Your task to perform on an android device: move a message to another label in the gmail app Image 0: 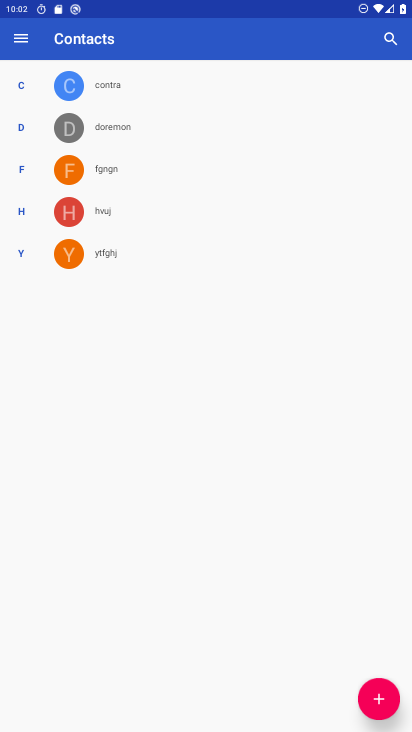
Step 0: press home button
Your task to perform on an android device: move a message to another label in the gmail app Image 1: 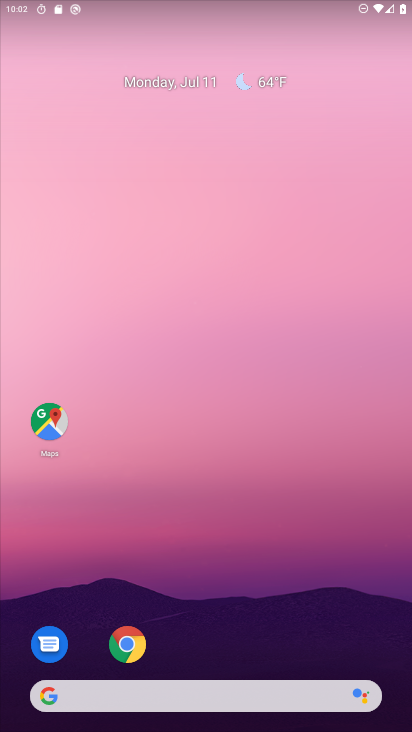
Step 1: drag from (307, 627) to (213, 172)
Your task to perform on an android device: move a message to another label in the gmail app Image 2: 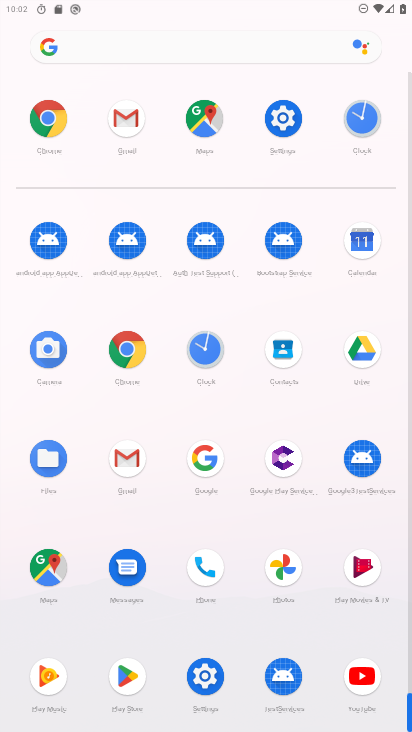
Step 2: click (131, 122)
Your task to perform on an android device: move a message to another label in the gmail app Image 3: 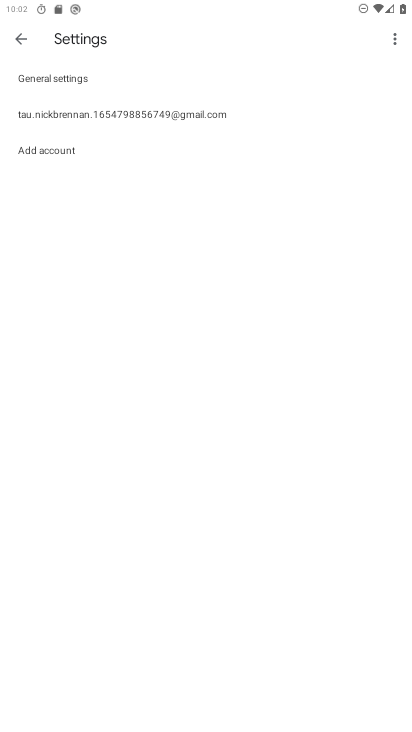
Step 3: click (13, 45)
Your task to perform on an android device: move a message to another label in the gmail app Image 4: 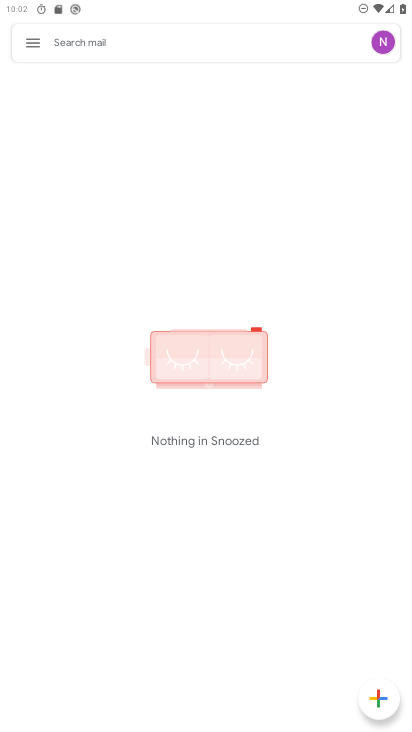
Step 4: click (33, 43)
Your task to perform on an android device: move a message to another label in the gmail app Image 5: 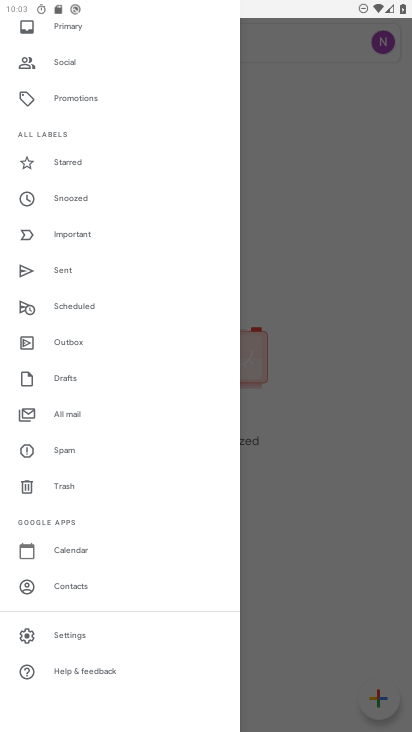
Step 5: click (62, 409)
Your task to perform on an android device: move a message to another label in the gmail app Image 6: 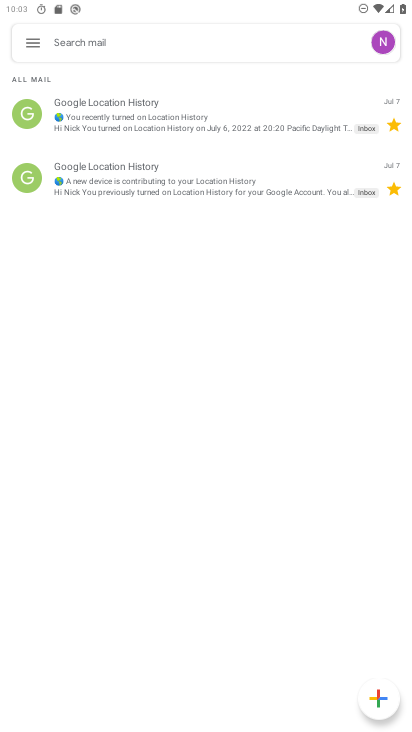
Step 6: click (278, 125)
Your task to perform on an android device: move a message to another label in the gmail app Image 7: 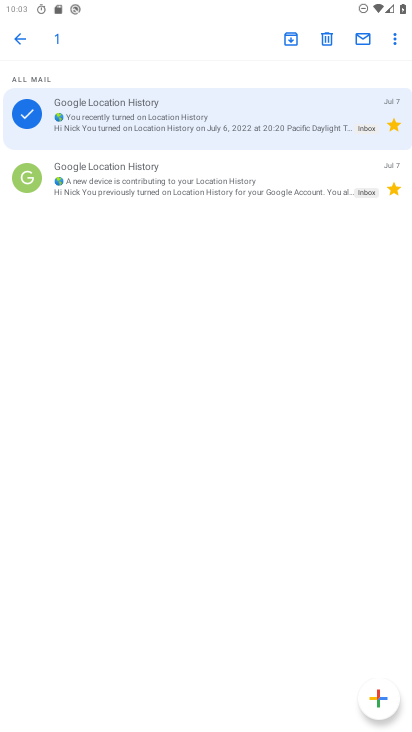
Step 7: click (398, 37)
Your task to perform on an android device: move a message to another label in the gmail app Image 8: 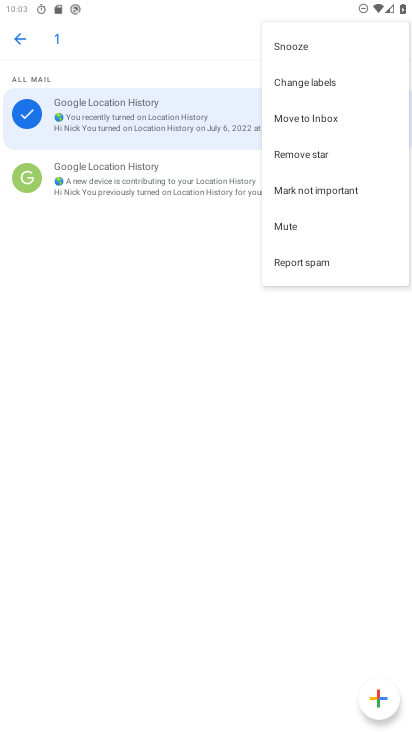
Step 8: click (306, 86)
Your task to perform on an android device: move a message to another label in the gmail app Image 9: 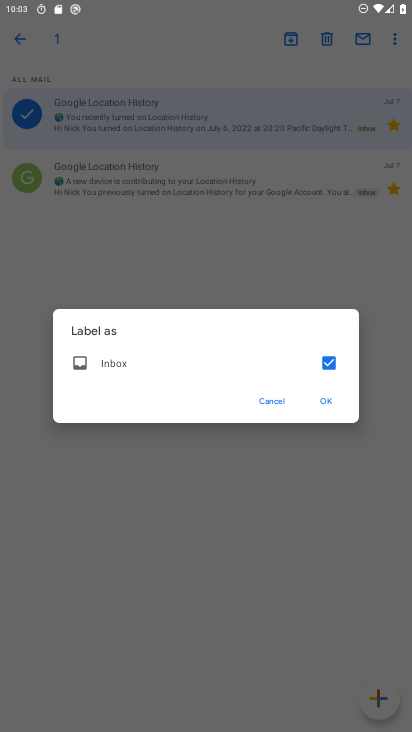
Step 9: task complete